Your task to perform on an android device: open wifi settings Image 0: 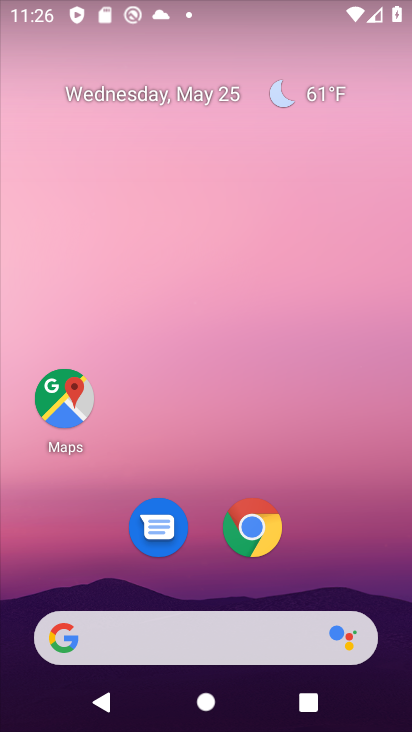
Step 0: drag from (233, 637) to (162, 134)
Your task to perform on an android device: open wifi settings Image 1: 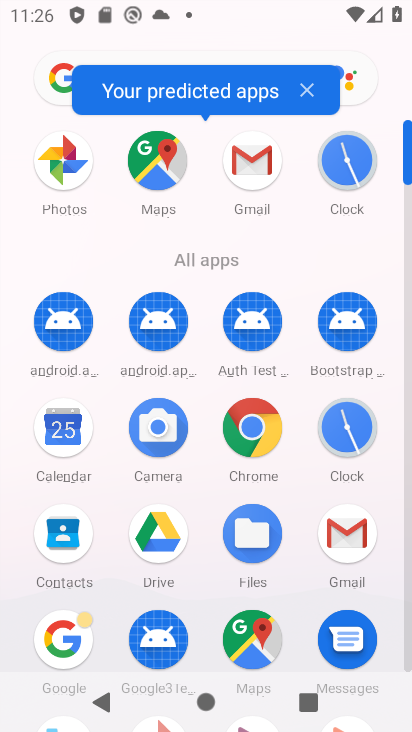
Step 1: drag from (276, 535) to (257, 360)
Your task to perform on an android device: open wifi settings Image 2: 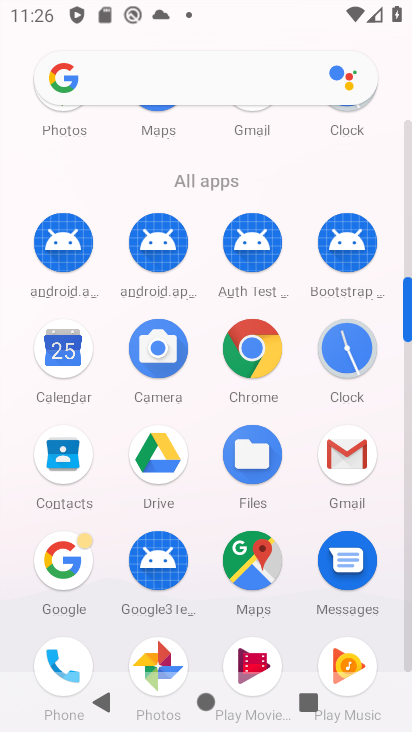
Step 2: drag from (214, 589) to (145, 209)
Your task to perform on an android device: open wifi settings Image 3: 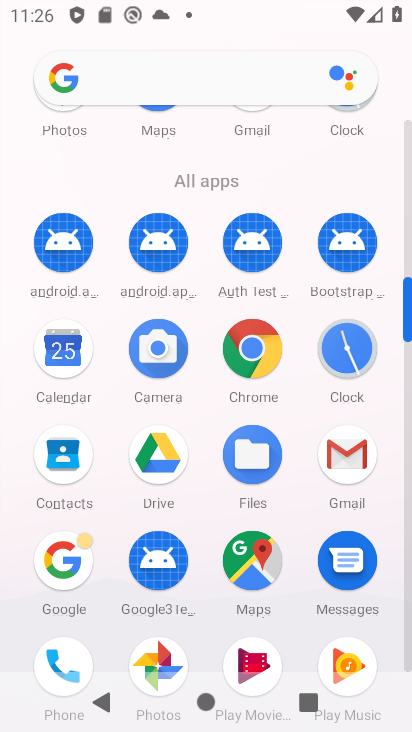
Step 3: drag from (196, 459) to (173, 226)
Your task to perform on an android device: open wifi settings Image 4: 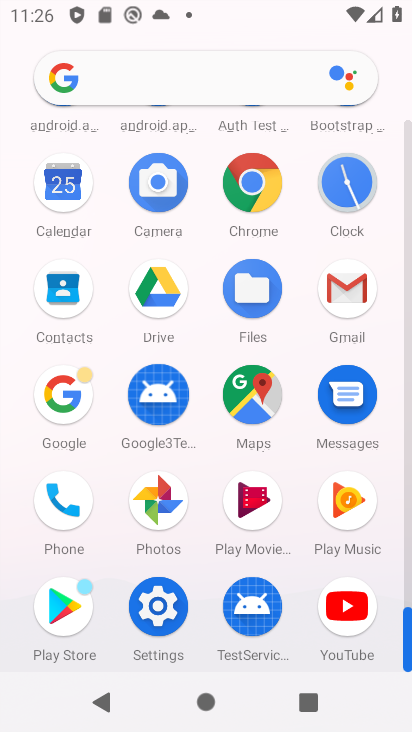
Step 4: drag from (218, 512) to (171, 220)
Your task to perform on an android device: open wifi settings Image 5: 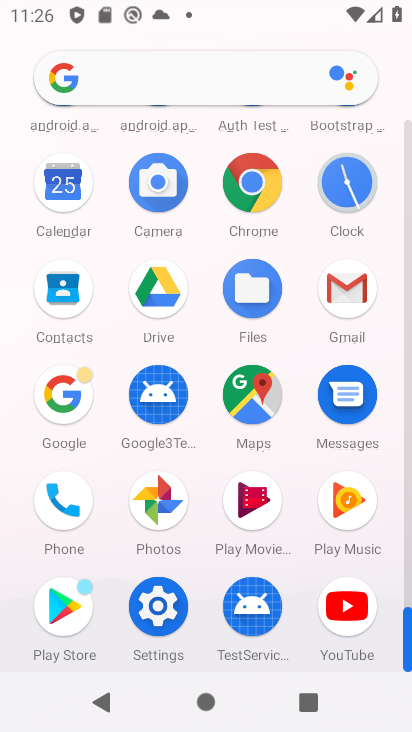
Step 5: click (151, 603)
Your task to perform on an android device: open wifi settings Image 6: 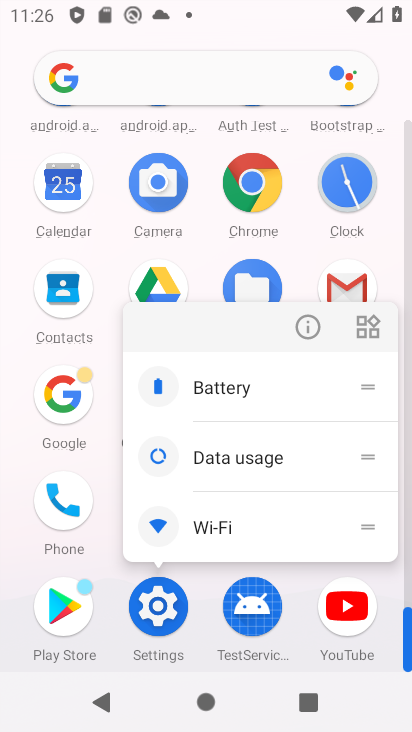
Step 6: click (209, 521)
Your task to perform on an android device: open wifi settings Image 7: 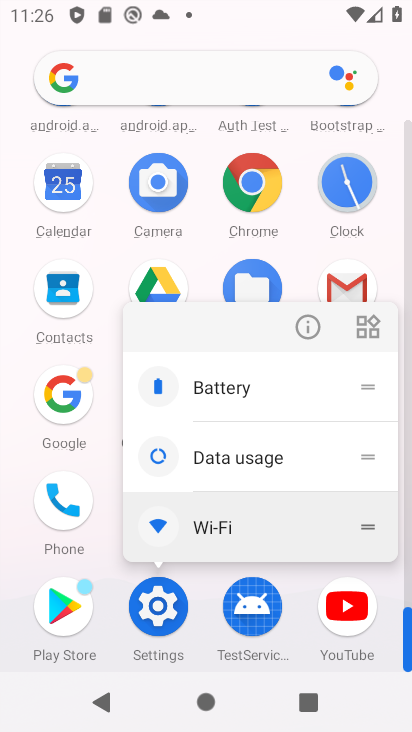
Step 7: click (211, 520)
Your task to perform on an android device: open wifi settings Image 8: 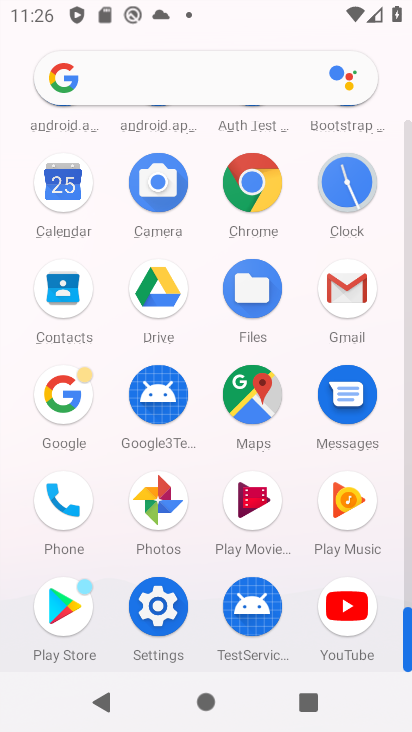
Step 8: click (211, 520)
Your task to perform on an android device: open wifi settings Image 9: 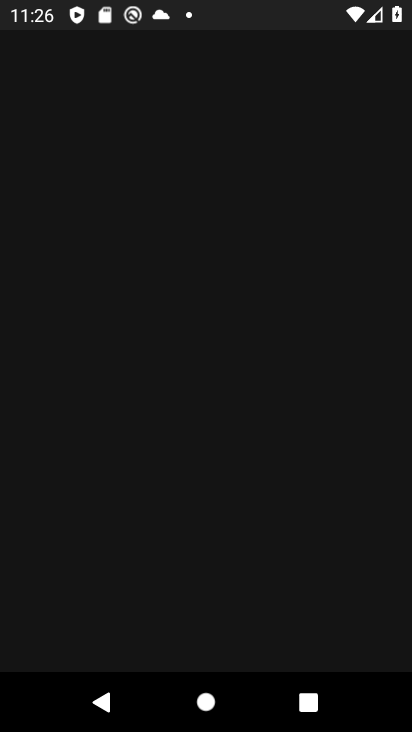
Step 9: click (244, 662)
Your task to perform on an android device: open wifi settings Image 10: 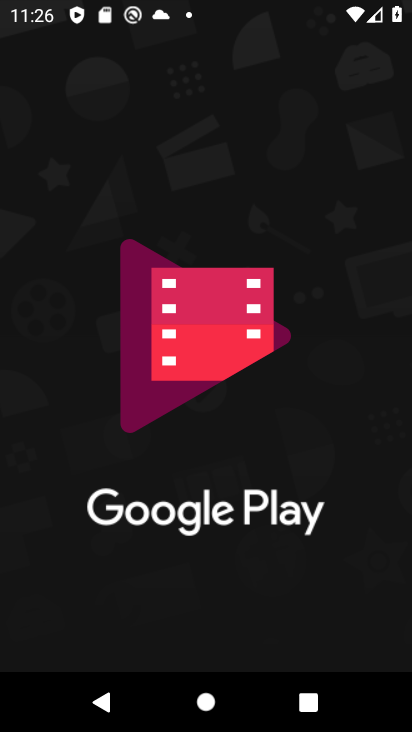
Step 10: press back button
Your task to perform on an android device: open wifi settings Image 11: 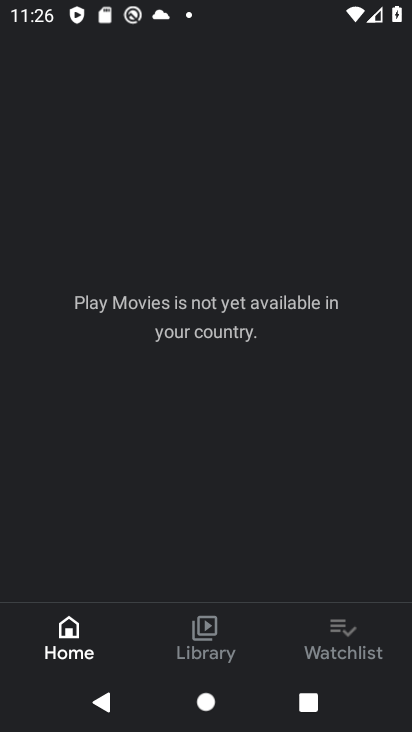
Step 11: press back button
Your task to perform on an android device: open wifi settings Image 12: 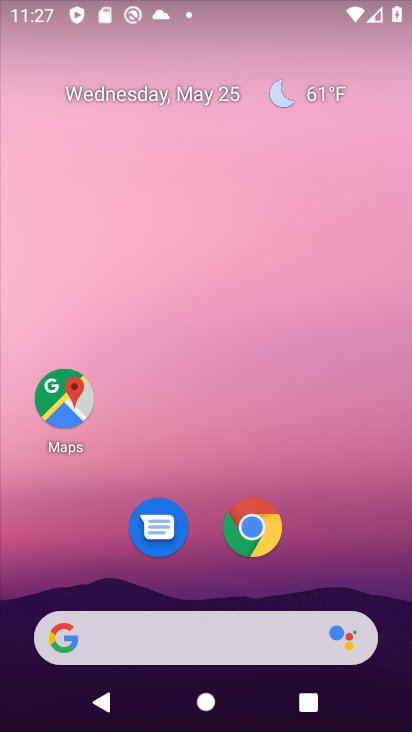
Step 12: press home button
Your task to perform on an android device: open wifi settings Image 13: 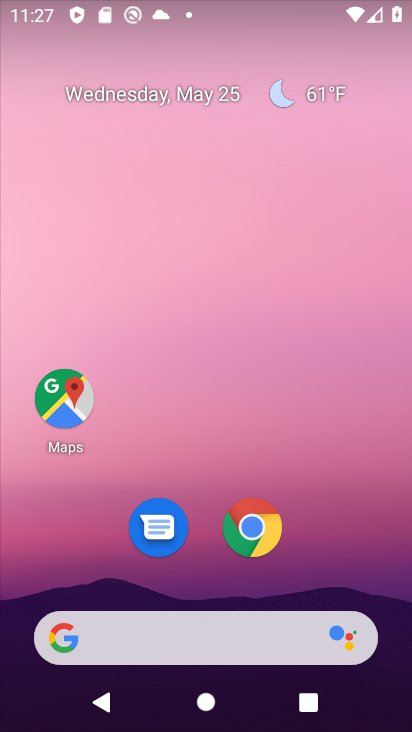
Step 13: drag from (266, 522) to (185, 125)
Your task to perform on an android device: open wifi settings Image 14: 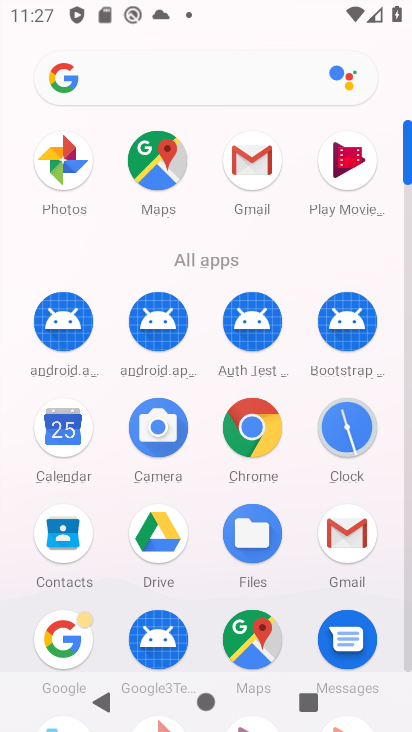
Step 14: drag from (260, 599) to (176, 359)
Your task to perform on an android device: open wifi settings Image 15: 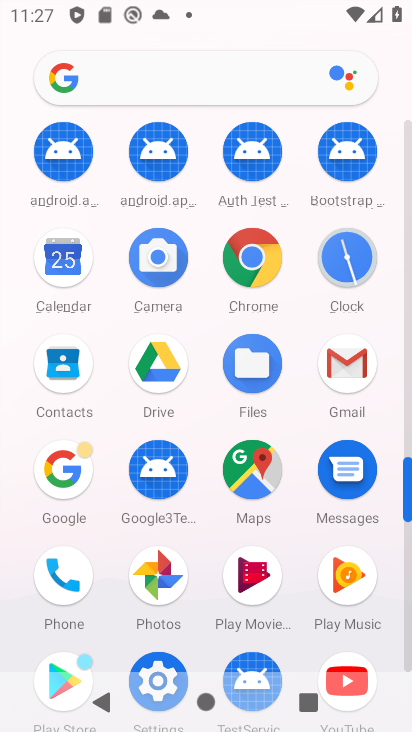
Step 15: drag from (227, 626) to (223, 218)
Your task to perform on an android device: open wifi settings Image 16: 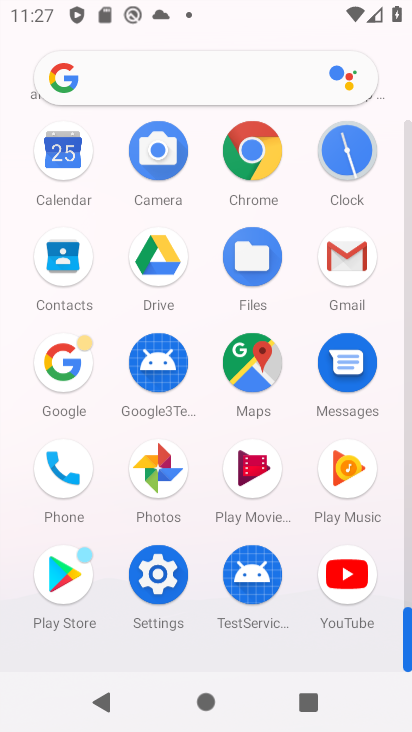
Step 16: drag from (303, 548) to (308, 175)
Your task to perform on an android device: open wifi settings Image 17: 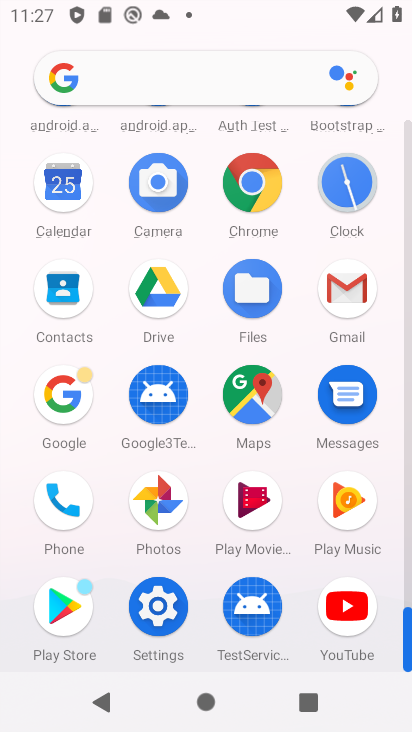
Step 17: click (166, 588)
Your task to perform on an android device: open wifi settings Image 18: 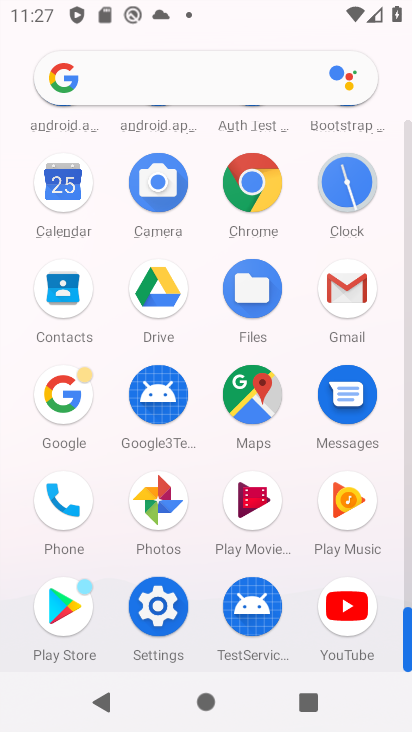
Step 18: click (166, 588)
Your task to perform on an android device: open wifi settings Image 19: 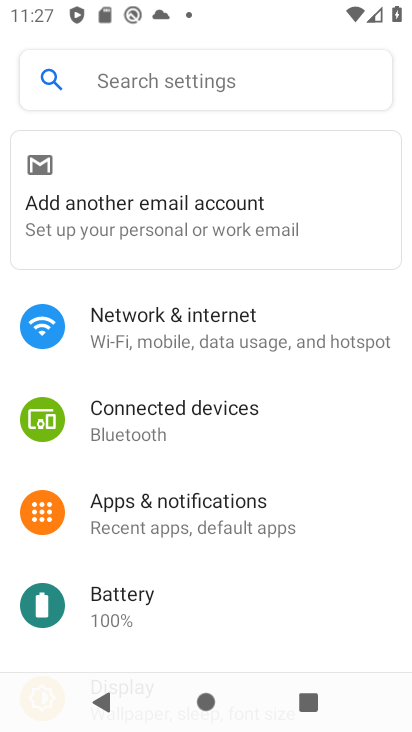
Step 19: click (150, 344)
Your task to perform on an android device: open wifi settings Image 20: 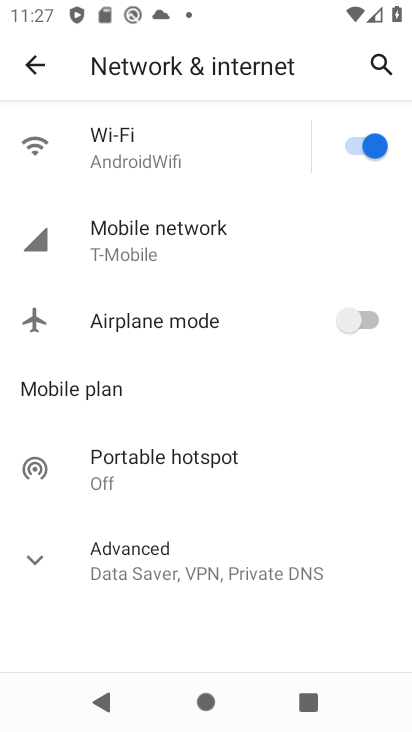
Step 20: task complete